Your task to perform on an android device: Open display settings Image 0: 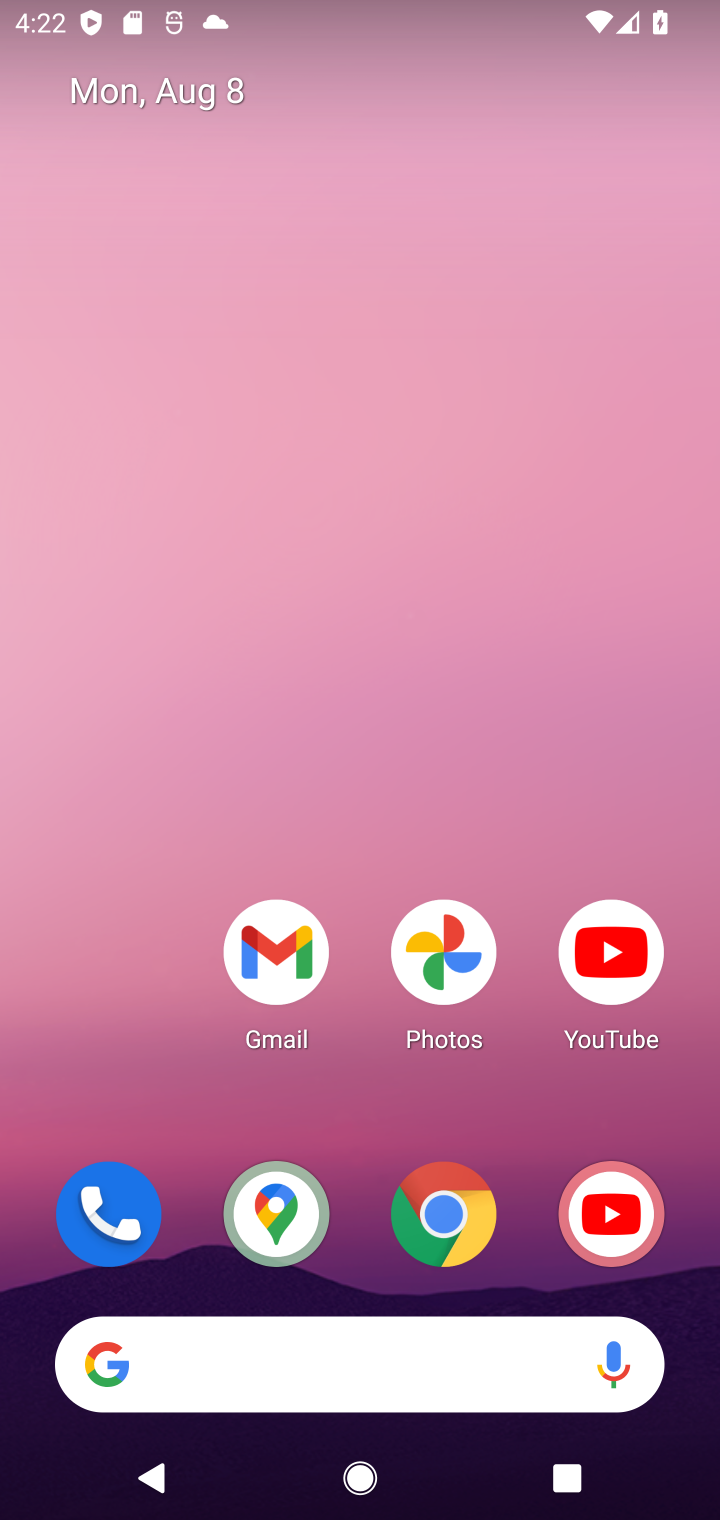
Step 0: drag from (361, 1290) to (356, 96)
Your task to perform on an android device: Open display settings Image 1: 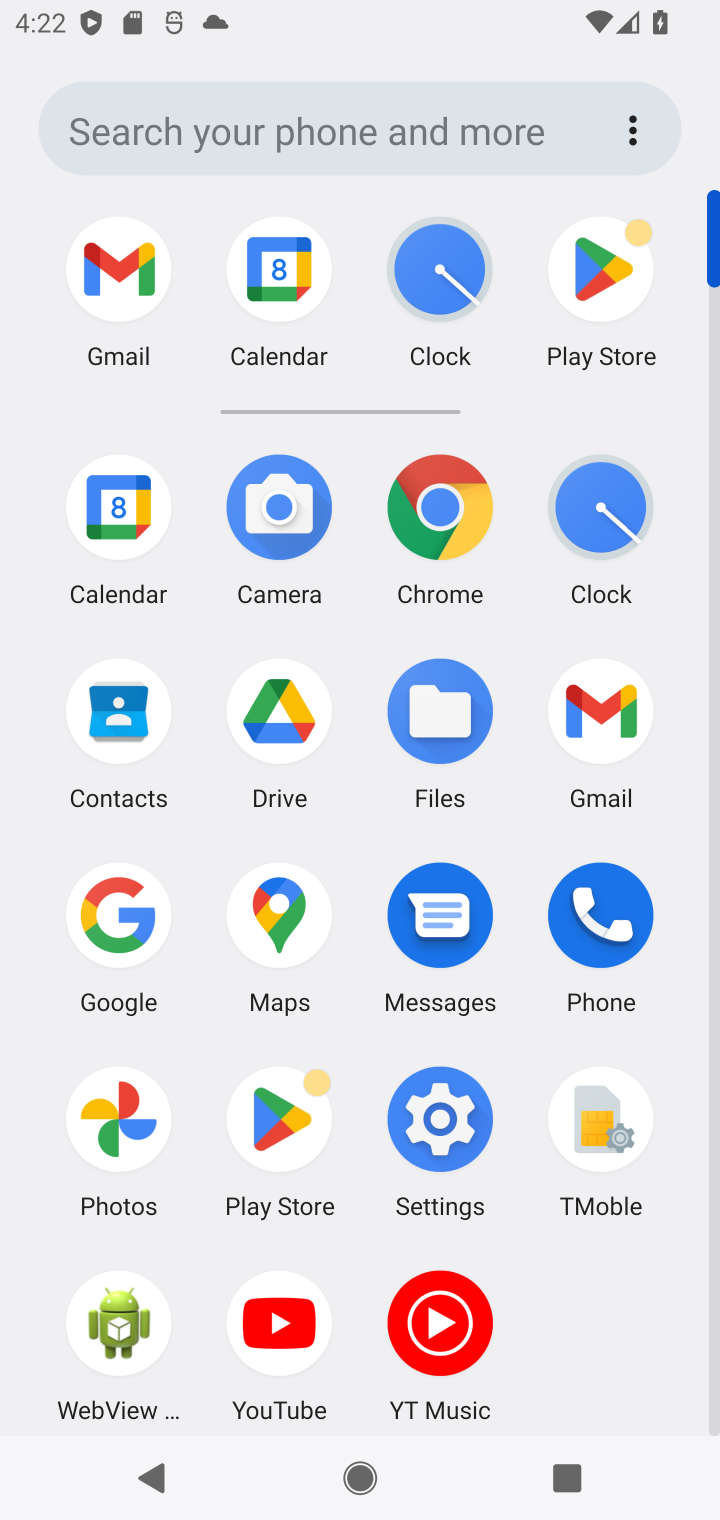
Step 1: click (428, 1117)
Your task to perform on an android device: Open display settings Image 2: 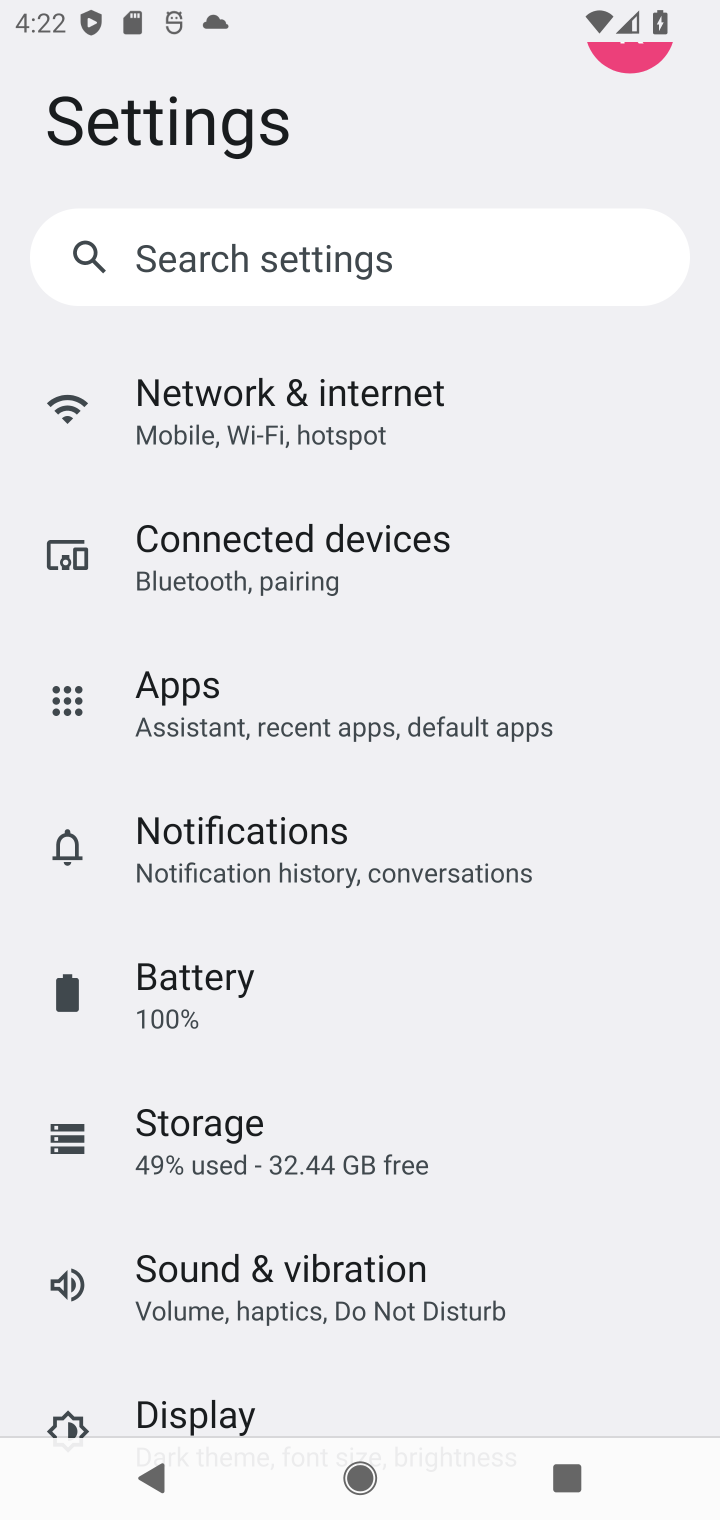
Step 2: click (181, 1408)
Your task to perform on an android device: Open display settings Image 3: 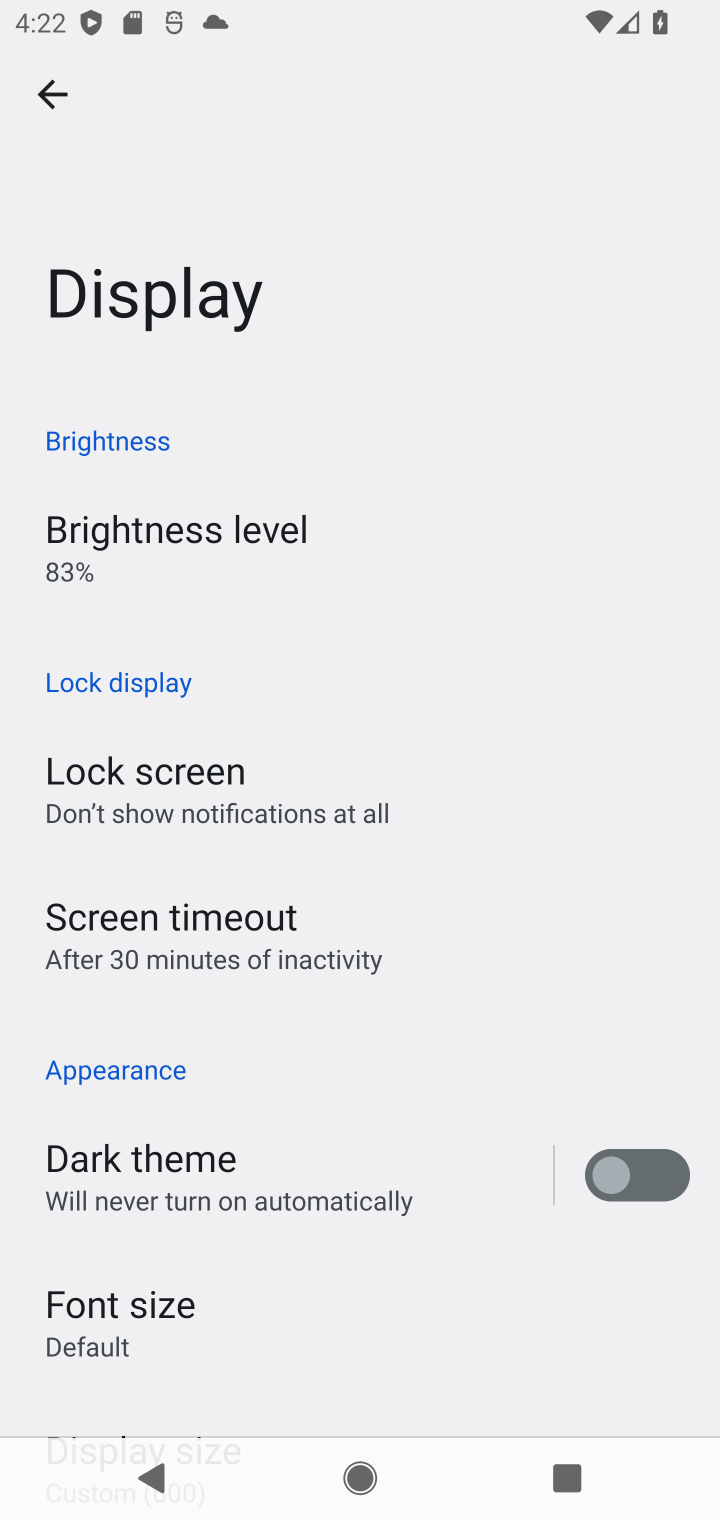
Step 3: task complete